Your task to perform on an android device: change alarm snooze length Image 0: 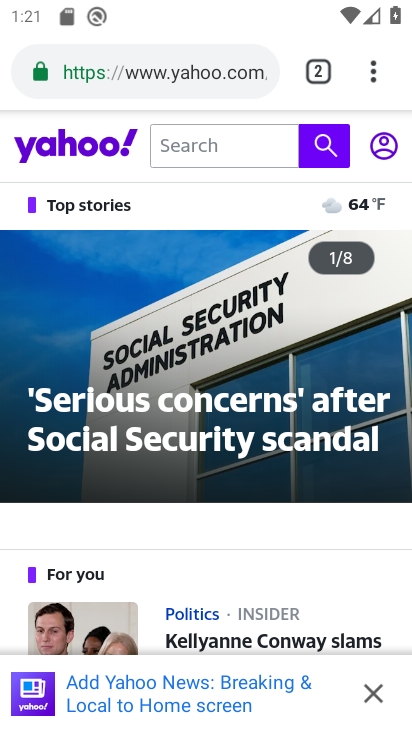
Step 0: press home button
Your task to perform on an android device: change alarm snooze length Image 1: 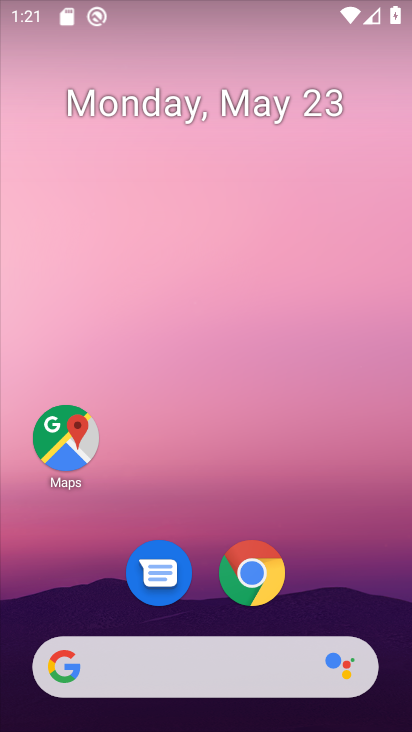
Step 1: drag from (334, 588) to (282, 203)
Your task to perform on an android device: change alarm snooze length Image 2: 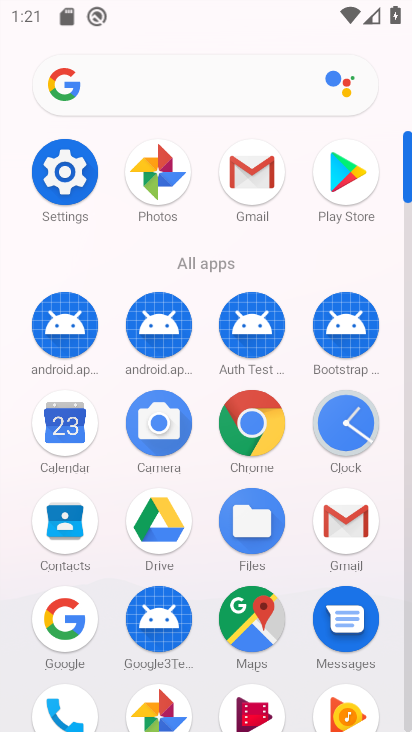
Step 2: click (361, 435)
Your task to perform on an android device: change alarm snooze length Image 3: 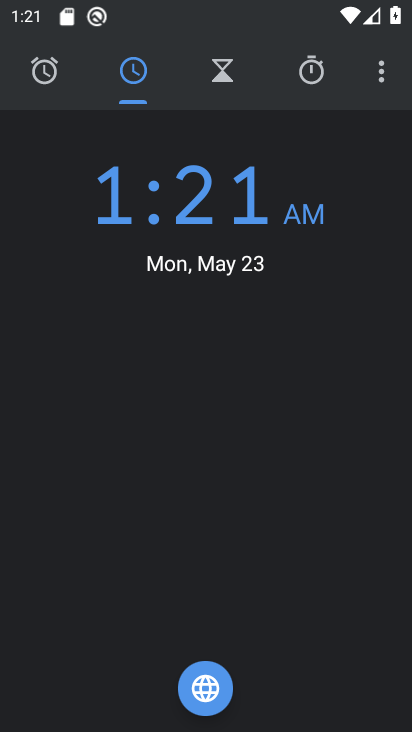
Step 3: click (392, 71)
Your task to perform on an android device: change alarm snooze length Image 4: 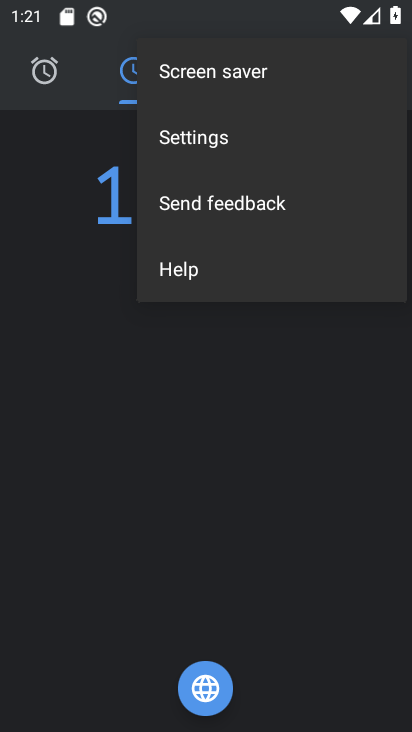
Step 4: click (205, 137)
Your task to perform on an android device: change alarm snooze length Image 5: 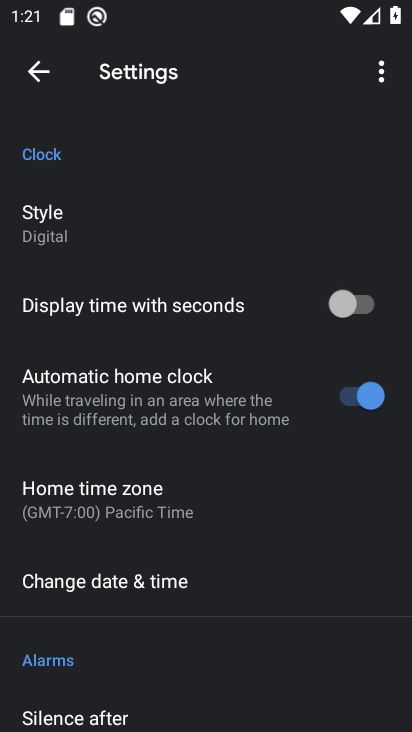
Step 5: drag from (199, 677) to (215, 276)
Your task to perform on an android device: change alarm snooze length Image 6: 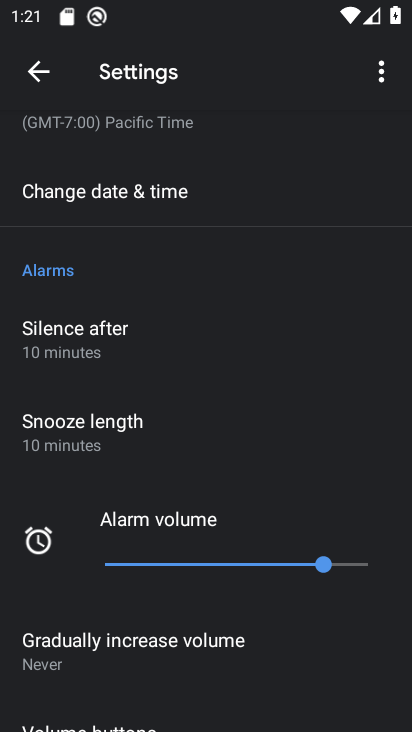
Step 6: click (111, 425)
Your task to perform on an android device: change alarm snooze length Image 7: 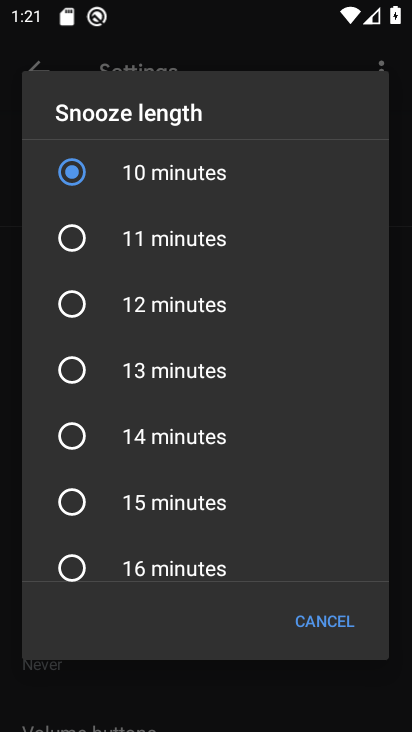
Step 7: drag from (220, 230) to (203, 416)
Your task to perform on an android device: change alarm snooze length Image 8: 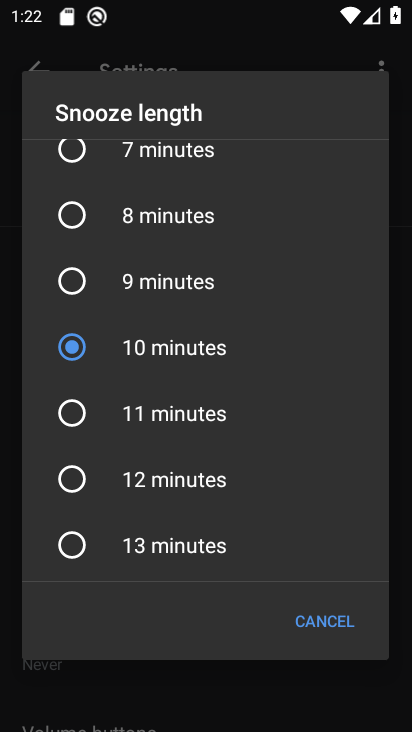
Step 8: click (74, 152)
Your task to perform on an android device: change alarm snooze length Image 9: 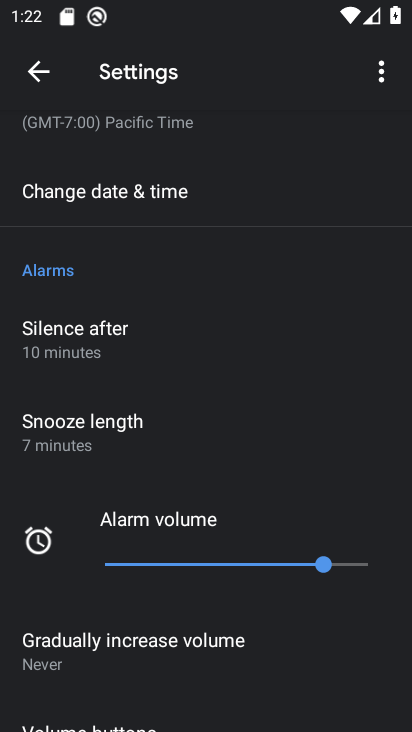
Step 9: task complete